Your task to perform on an android device: clear history in the chrome app Image 0: 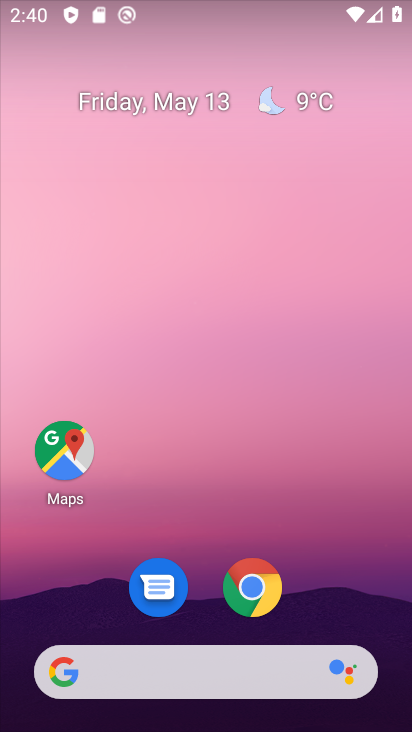
Step 0: click (257, 603)
Your task to perform on an android device: clear history in the chrome app Image 1: 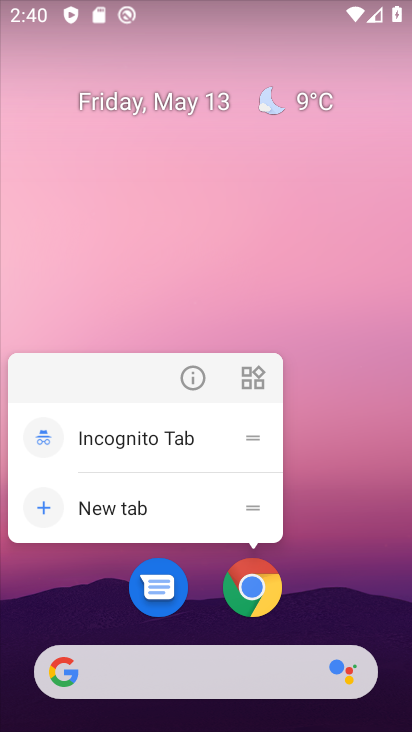
Step 1: click (259, 598)
Your task to perform on an android device: clear history in the chrome app Image 2: 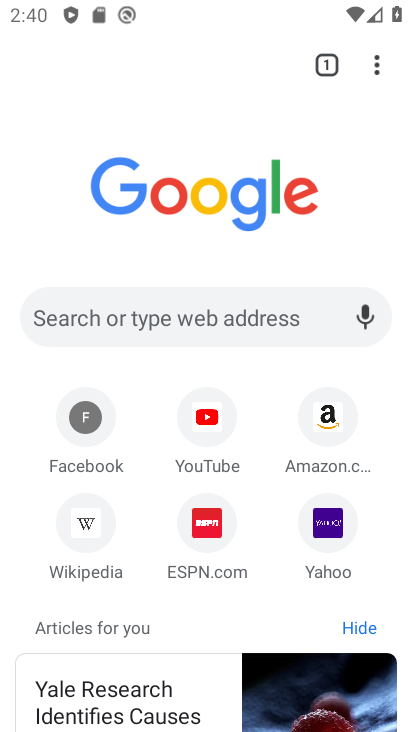
Step 2: task complete